Your task to perform on an android device: Open the map Image 0: 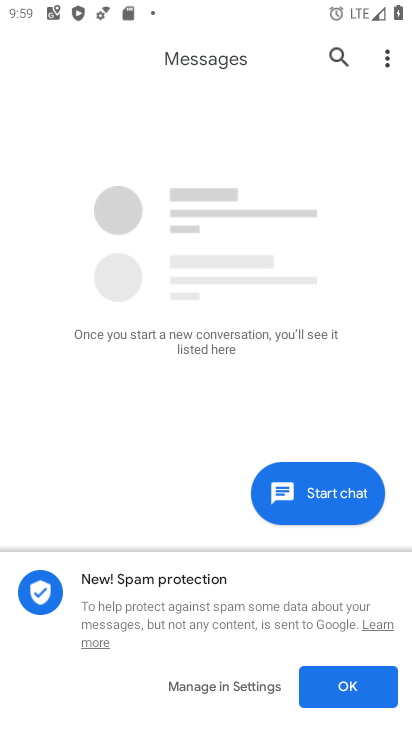
Step 0: press home button
Your task to perform on an android device: Open the map Image 1: 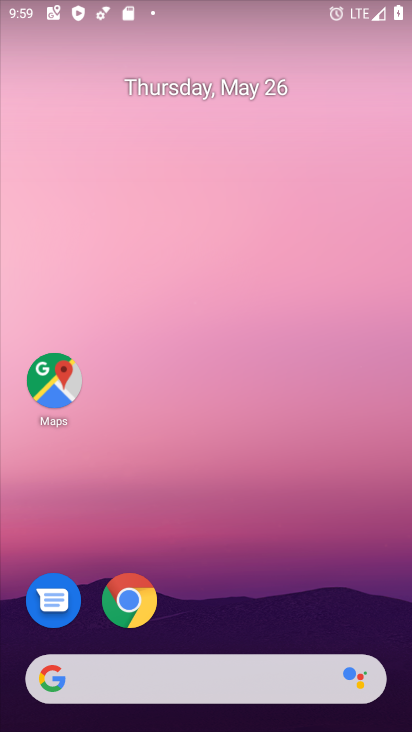
Step 1: drag from (257, 603) to (316, 140)
Your task to perform on an android device: Open the map Image 2: 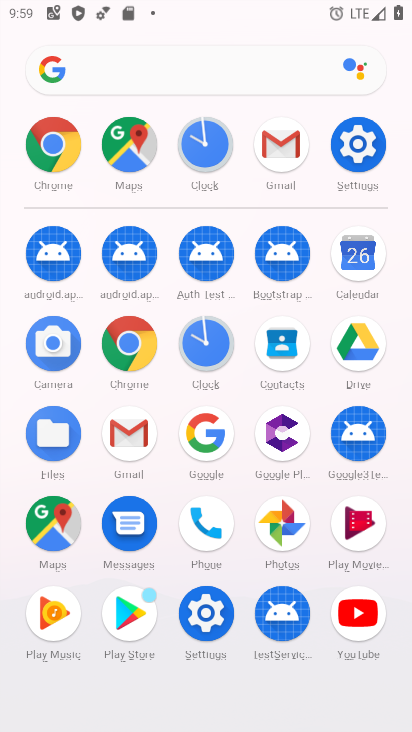
Step 2: click (118, 155)
Your task to perform on an android device: Open the map Image 3: 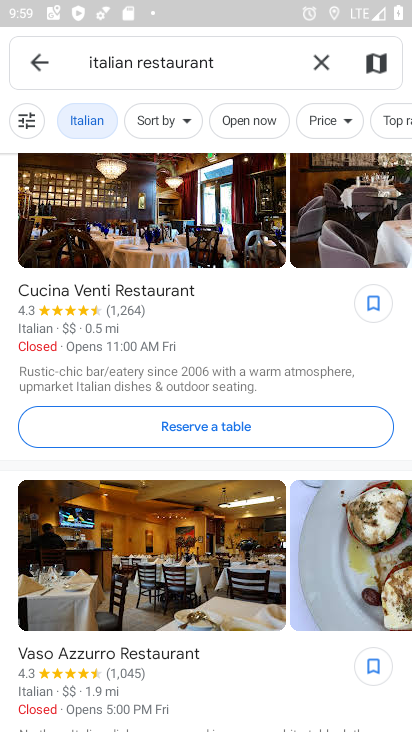
Step 3: task complete